Your task to perform on an android device: check storage Image 0: 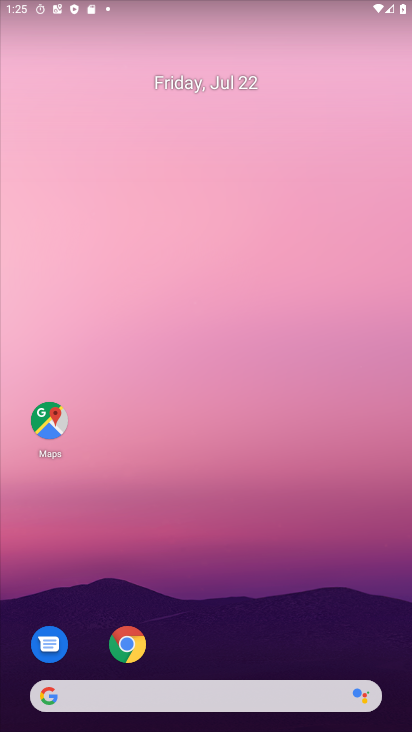
Step 0: drag from (221, 689) to (316, 144)
Your task to perform on an android device: check storage Image 1: 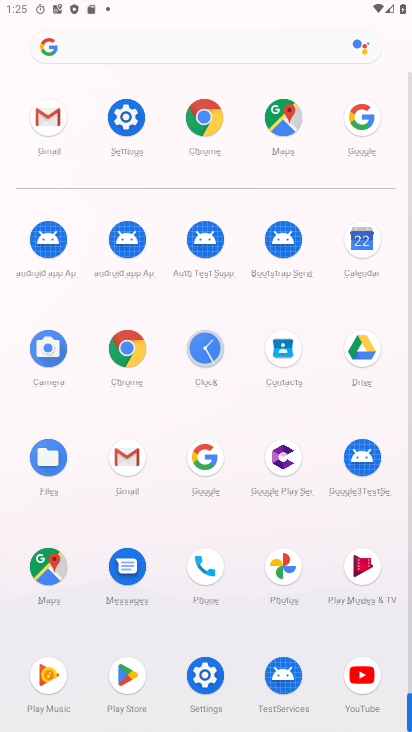
Step 1: click (112, 121)
Your task to perform on an android device: check storage Image 2: 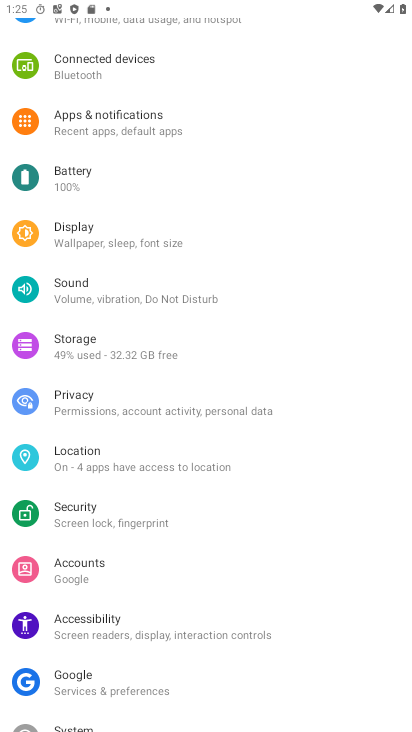
Step 2: click (99, 350)
Your task to perform on an android device: check storage Image 3: 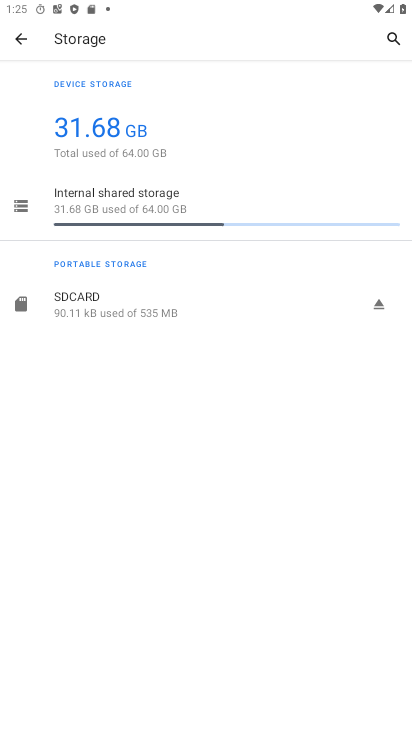
Step 3: click (114, 221)
Your task to perform on an android device: check storage Image 4: 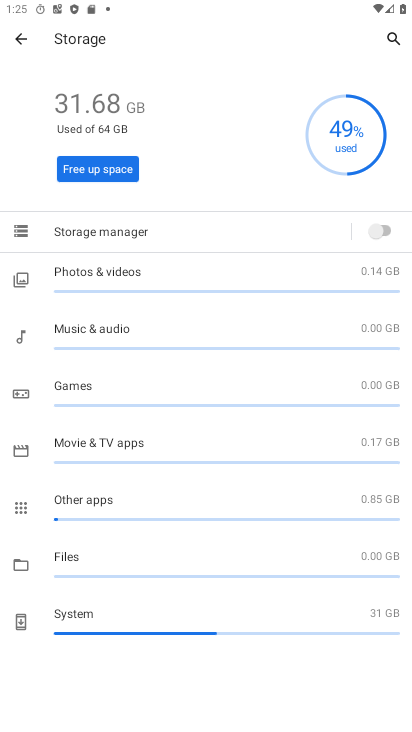
Step 4: task complete